Your task to perform on an android device: delete browsing data in the chrome app Image 0: 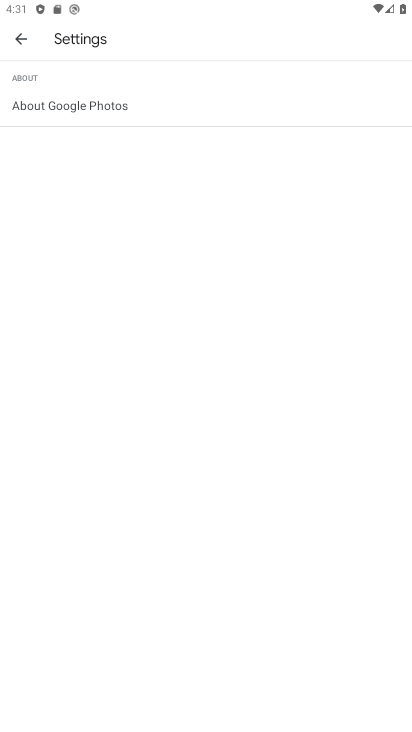
Step 0: press home button
Your task to perform on an android device: delete browsing data in the chrome app Image 1: 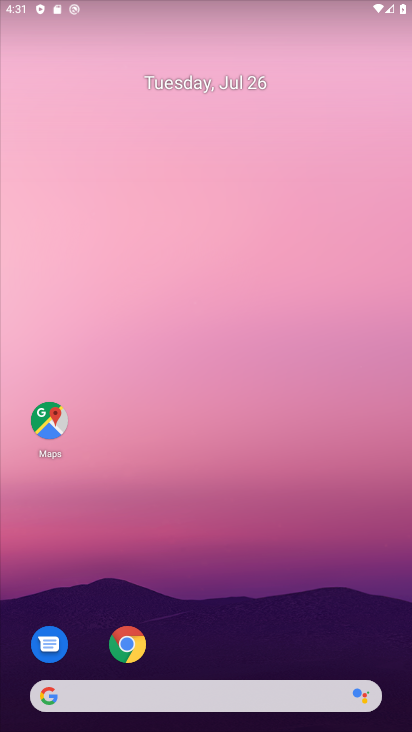
Step 1: drag from (296, 630) to (300, 12)
Your task to perform on an android device: delete browsing data in the chrome app Image 2: 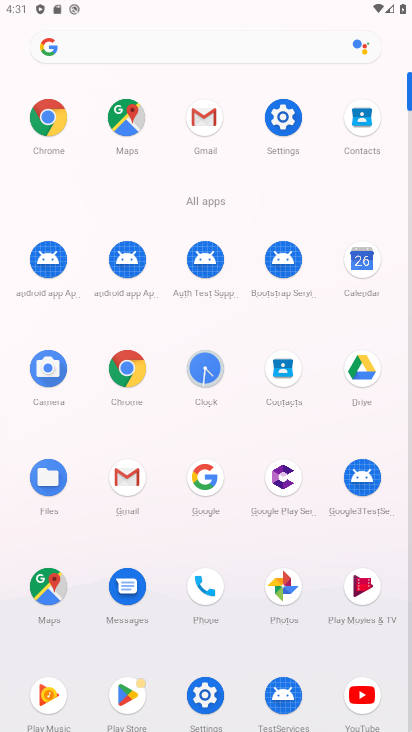
Step 2: click (127, 364)
Your task to perform on an android device: delete browsing data in the chrome app Image 3: 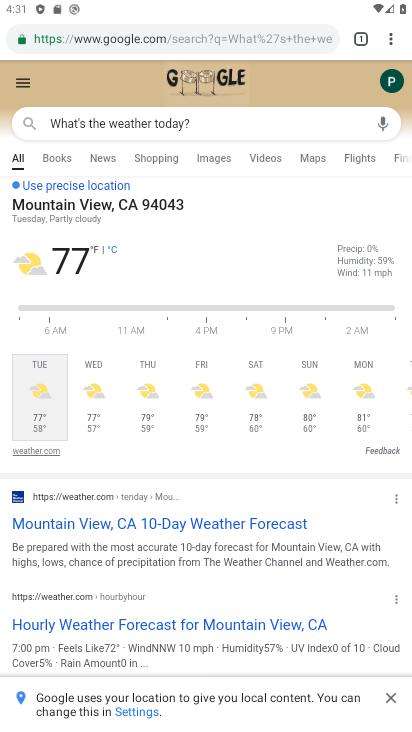
Step 3: drag from (395, 38) to (251, 438)
Your task to perform on an android device: delete browsing data in the chrome app Image 4: 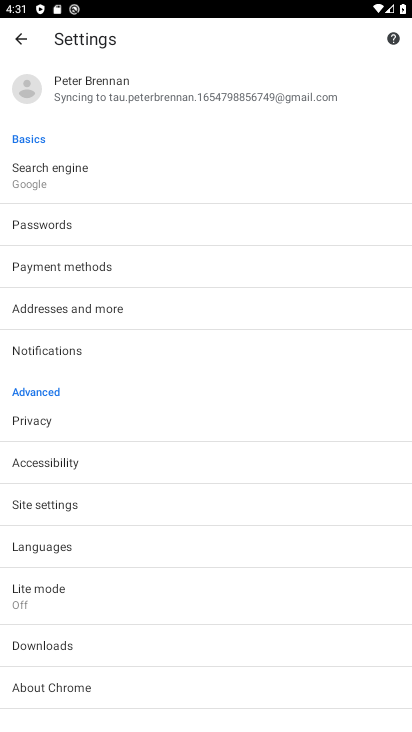
Step 4: click (22, 424)
Your task to perform on an android device: delete browsing data in the chrome app Image 5: 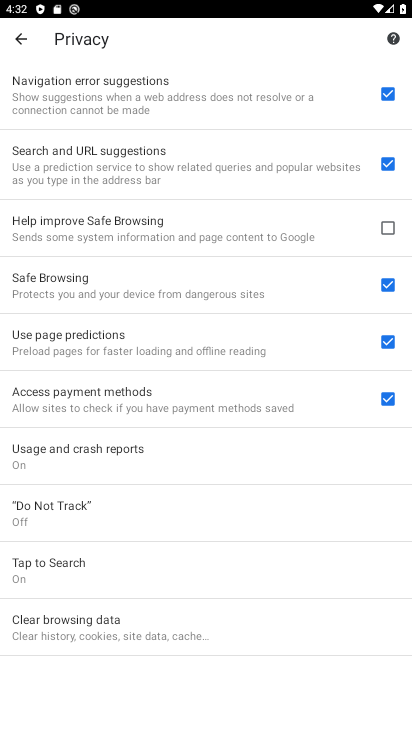
Step 5: click (89, 625)
Your task to perform on an android device: delete browsing data in the chrome app Image 6: 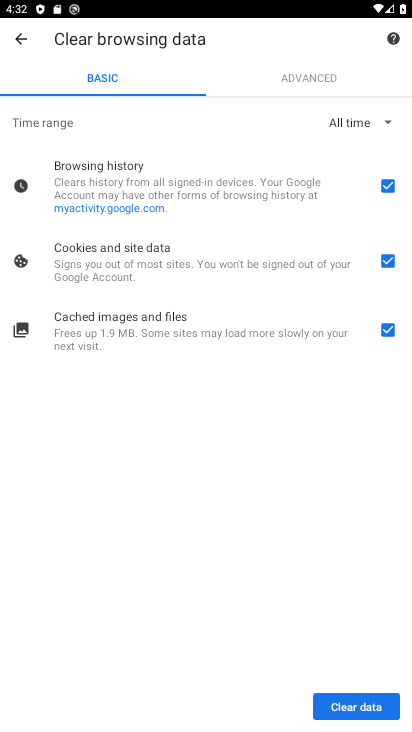
Step 6: click (377, 709)
Your task to perform on an android device: delete browsing data in the chrome app Image 7: 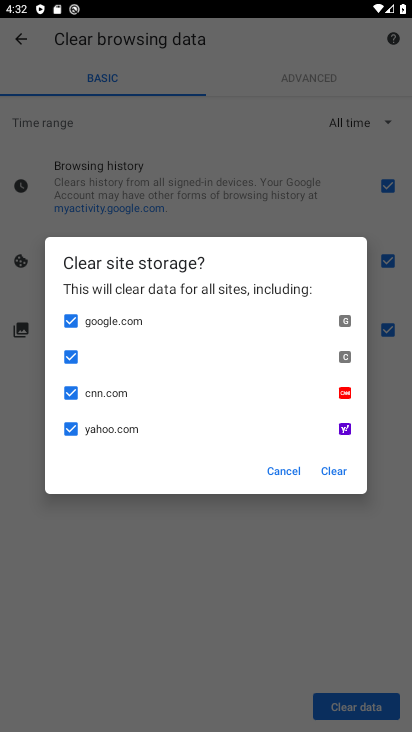
Step 7: click (345, 468)
Your task to perform on an android device: delete browsing data in the chrome app Image 8: 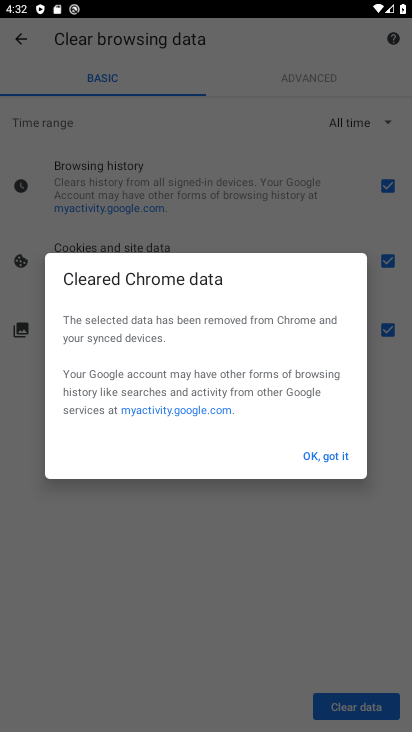
Step 8: click (335, 460)
Your task to perform on an android device: delete browsing data in the chrome app Image 9: 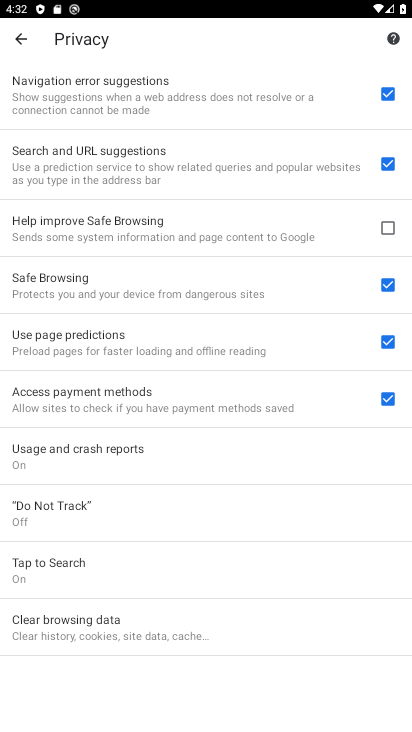
Step 9: task complete